Your task to perform on an android device: open app "VLC for Android" Image 0: 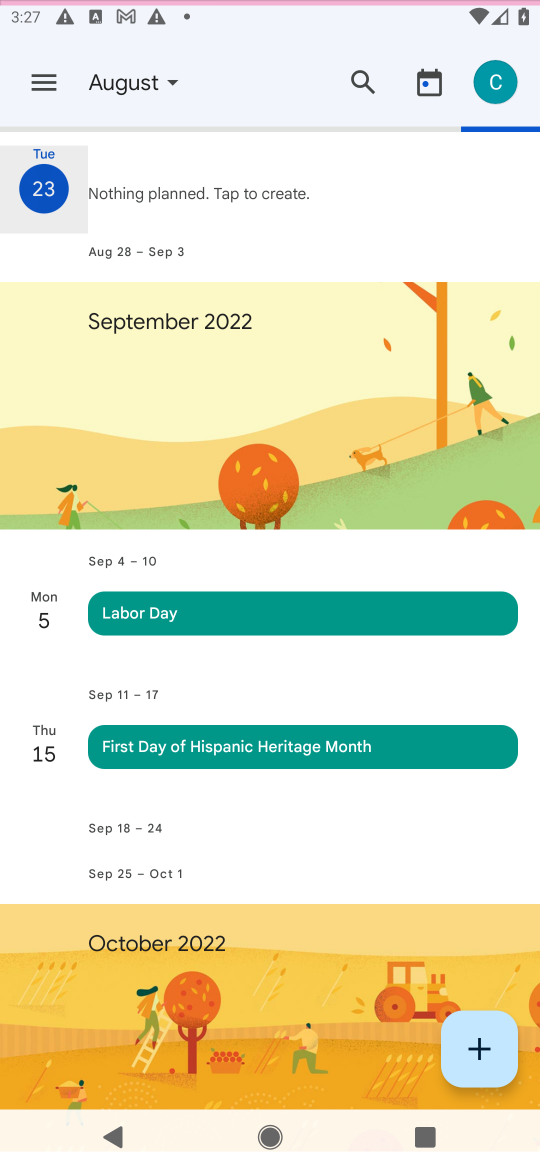
Step 0: press home button
Your task to perform on an android device: open app "VLC for Android" Image 1: 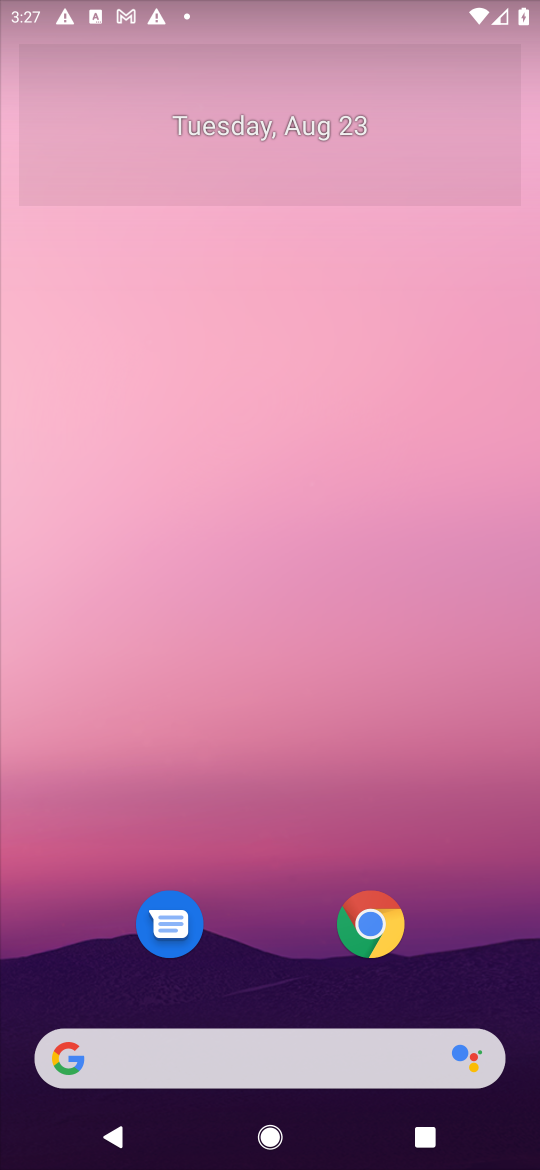
Step 1: drag from (487, 950) to (519, 227)
Your task to perform on an android device: open app "VLC for Android" Image 2: 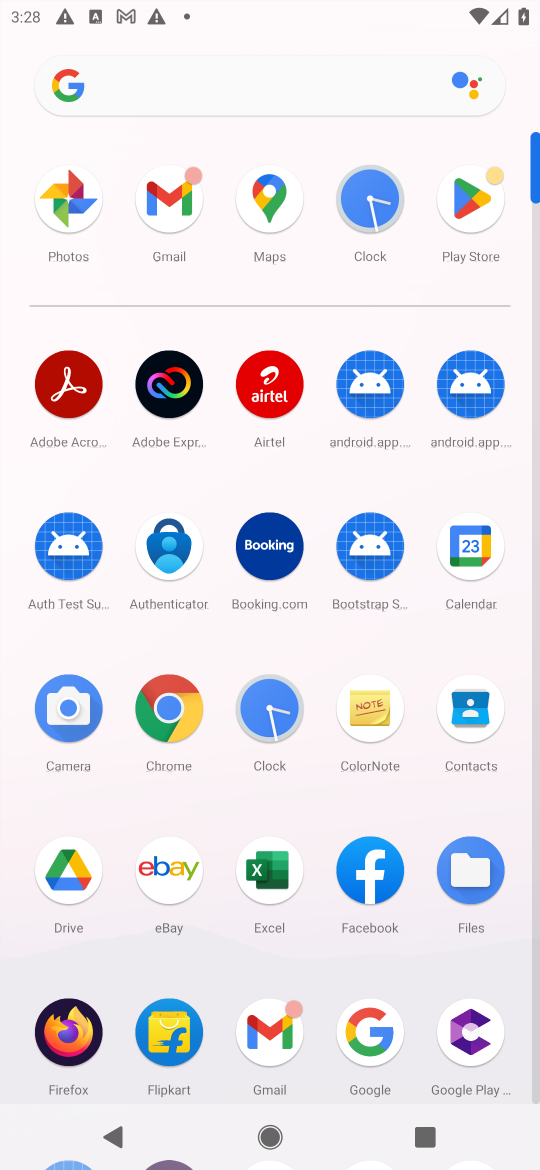
Step 2: click (472, 195)
Your task to perform on an android device: open app "VLC for Android" Image 3: 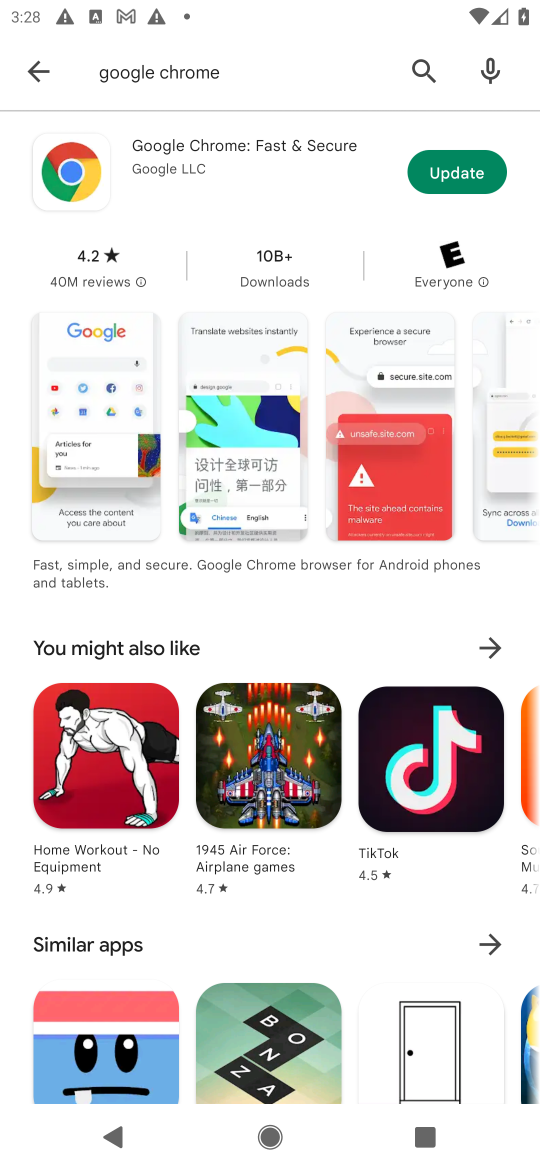
Step 3: press back button
Your task to perform on an android device: open app "VLC for Android" Image 4: 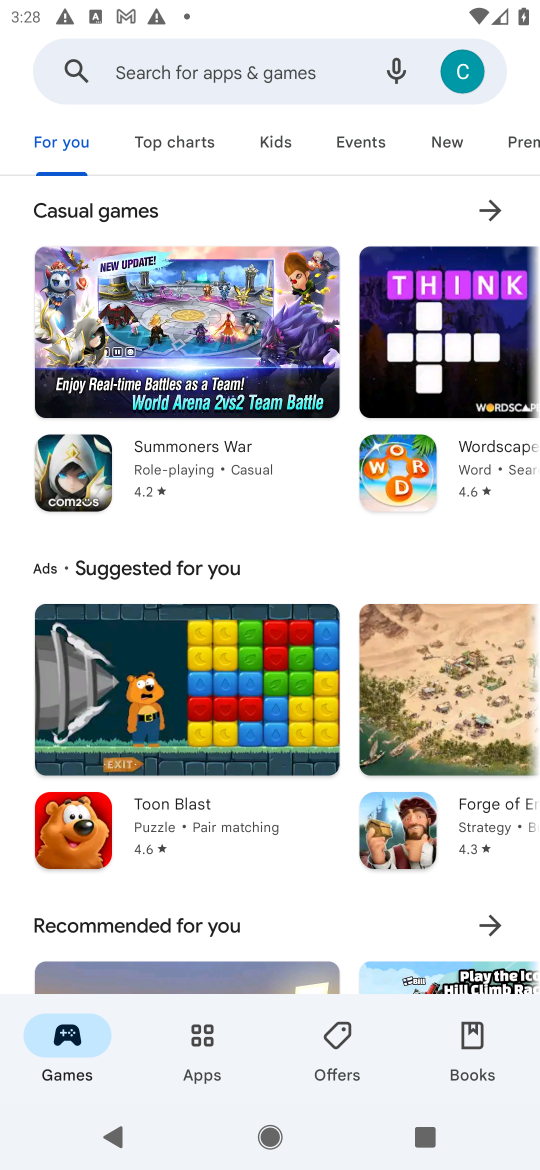
Step 4: click (229, 80)
Your task to perform on an android device: open app "VLC for Android" Image 5: 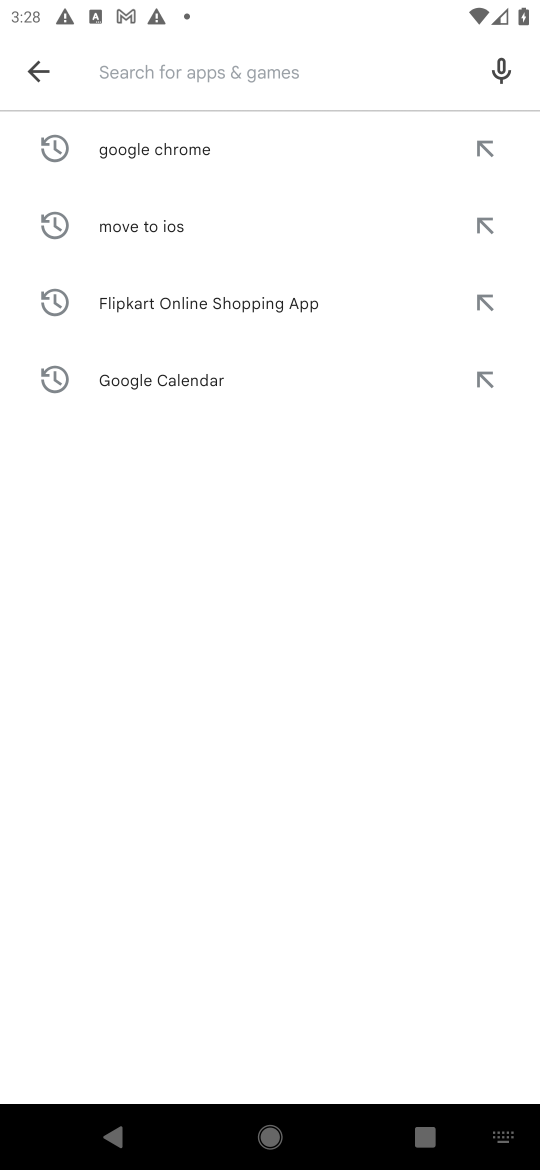
Step 5: press enter
Your task to perform on an android device: open app "VLC for Android" Image 6: 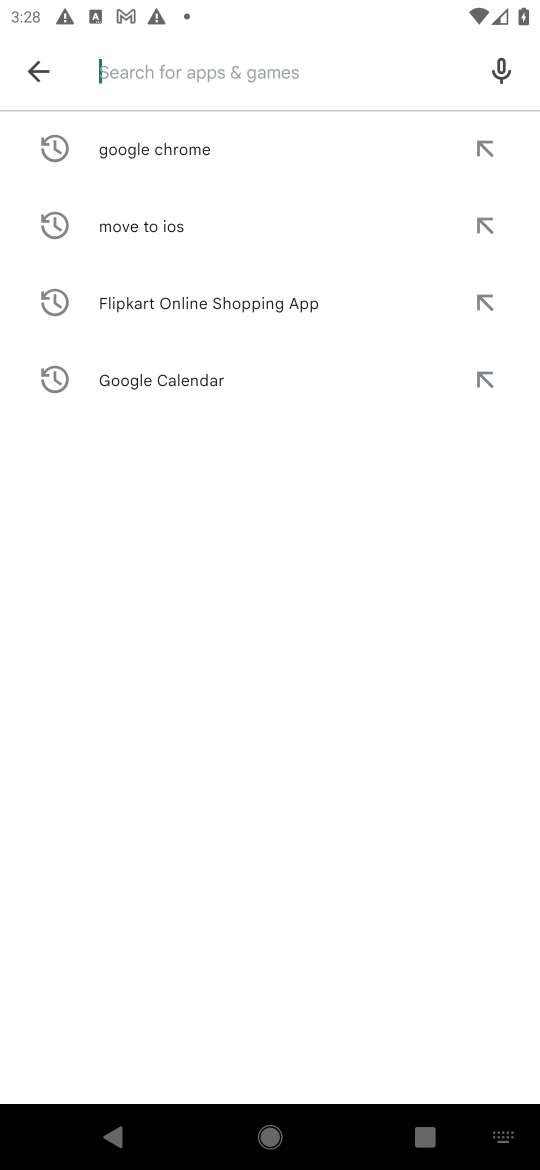
Step 6: type "VLC for Android"
Your task to perform on an android device: open app "VLC for Android" Image 7: 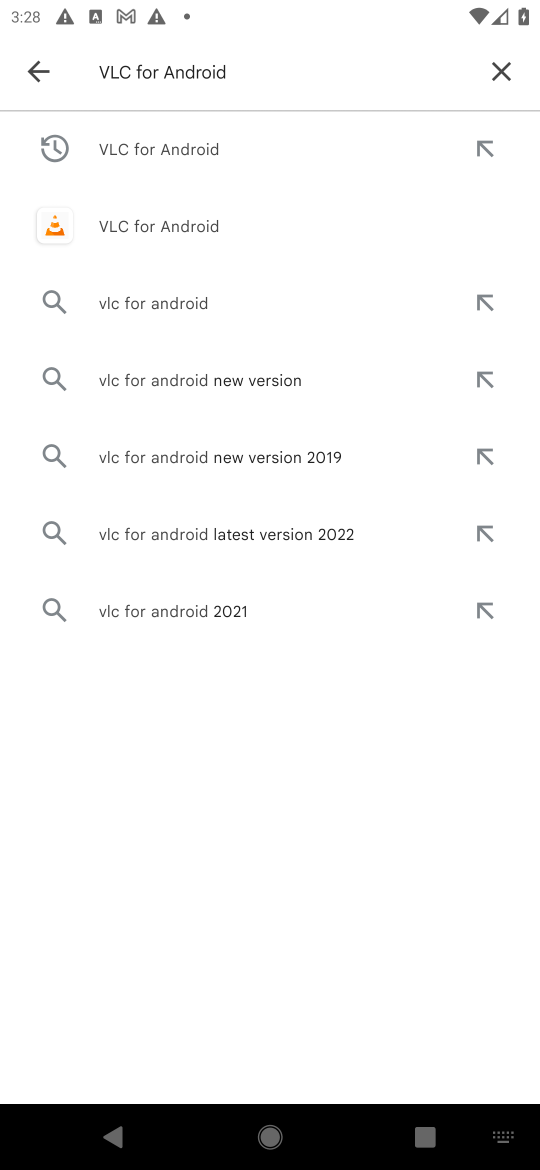
Step 7: click (213, 239)
Your task to perform on an android device: open app "VLC for Android" Image 8: 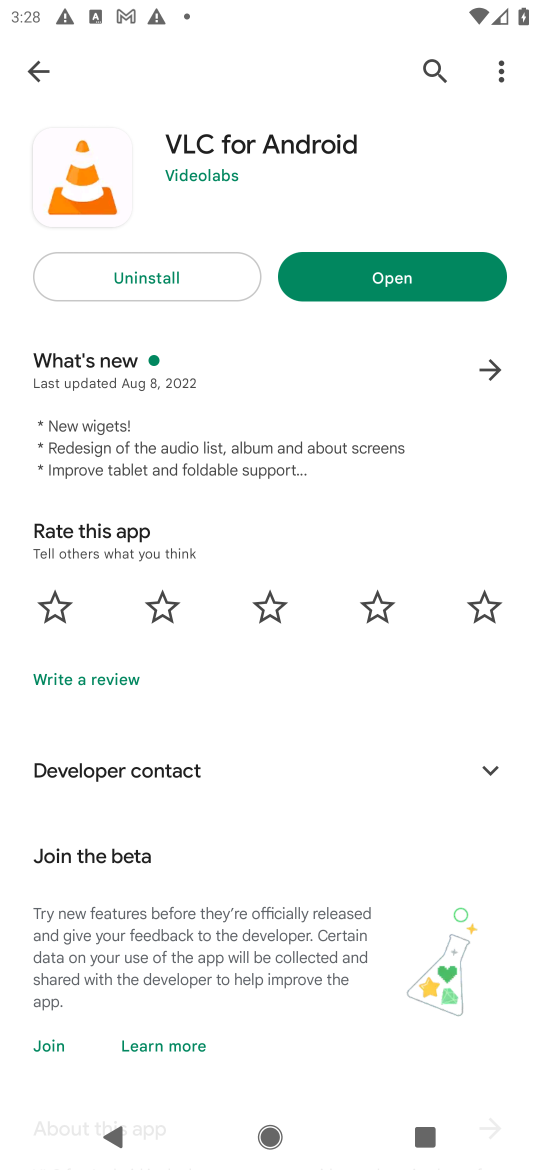
Step 8: click (404, 275)
Your task to perform on an android device: open app "VLC for Android" Image 9: 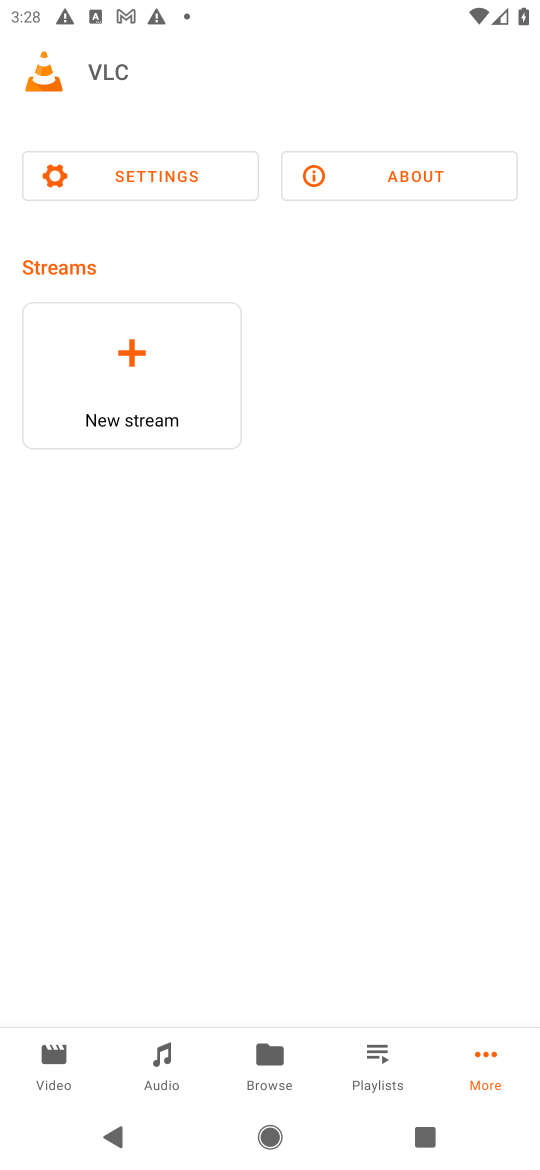
Step 9: task complete